Your task to perform on an android device: turn off data saver in the chrome app Image 0: 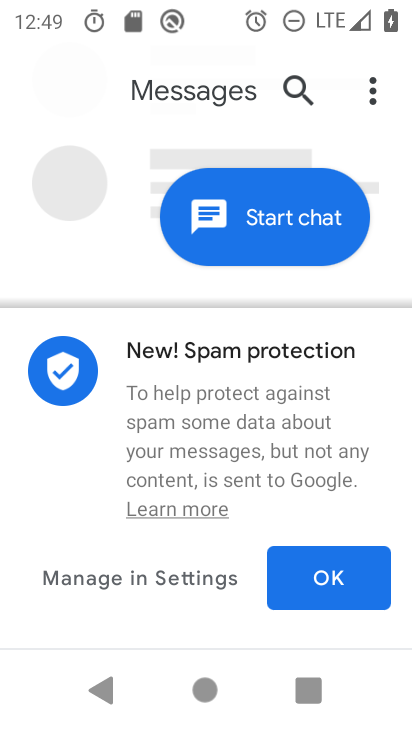
Step 0: press home button
Your task to perform on an android device: turn off data saver in the chrome app Image 1: 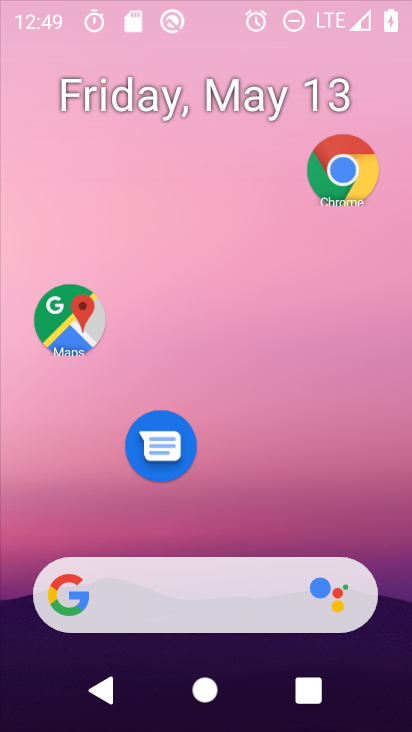
Step 1: drag from (276, 649) to (250, 71)
Your task to perform on an android device: turn off data saver in the chrome app Image 2: 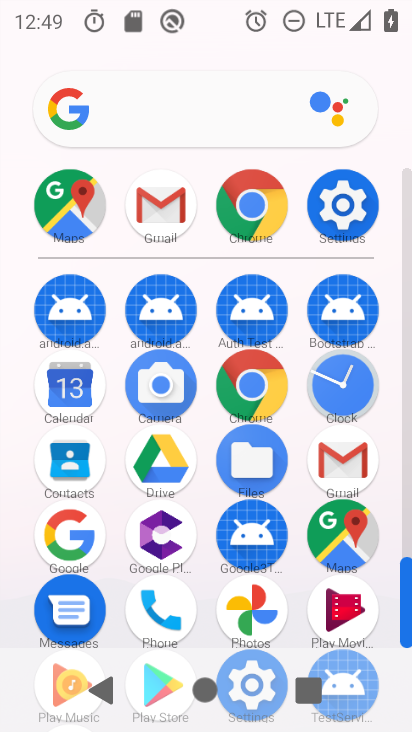
Step 2: click (254, 394)
Your task to perform on an android device: turn off data saver in the chrome app Image 3: 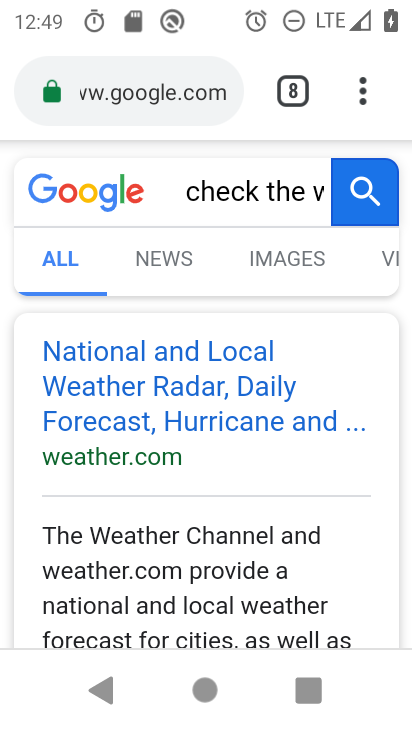
Step 3: click (373, 101)
Your task to perform on an android device: turn off data saver in the chrome app Image 4: 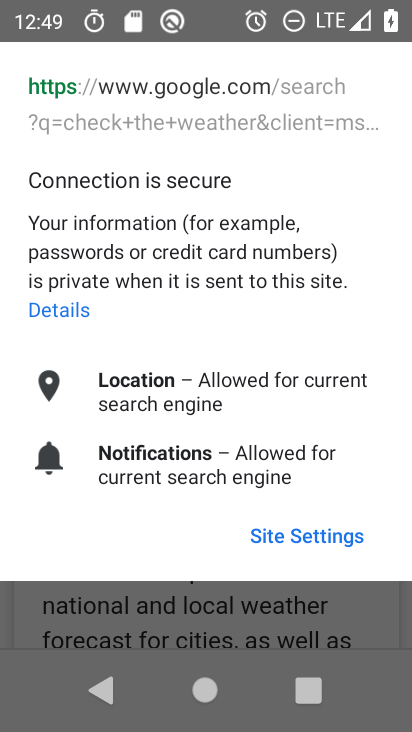
Step 4: press back button
Your task to perform on an android device: turn off data saver in the chrome app Image 5: 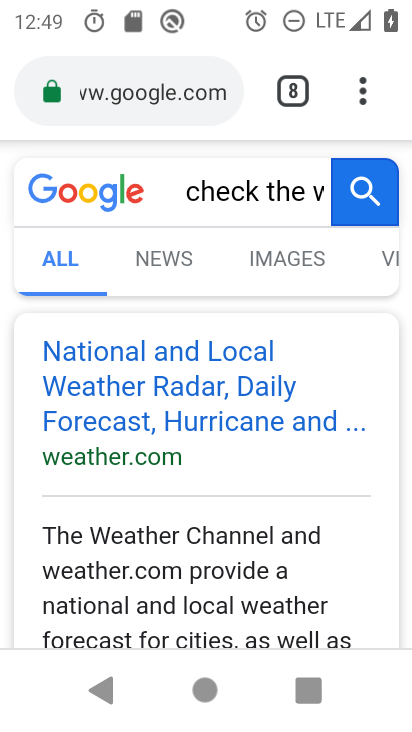
Step 5: drag from (362, 85) to (209, 489)
Your task to perform on an android device: turn off data saver in the chrome app Image 6: 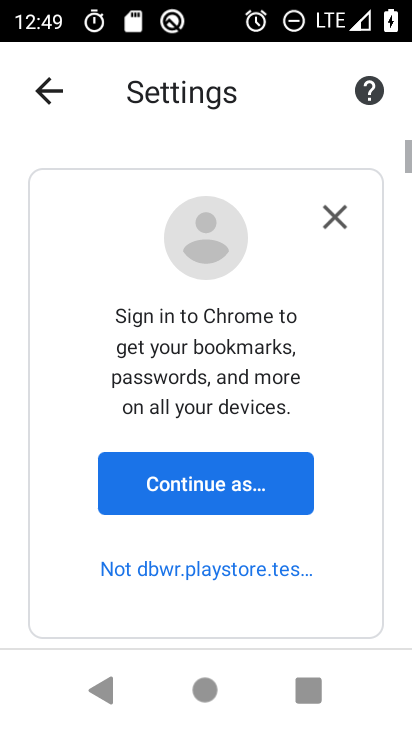
Step 6: drag from (249, 605) to (289, 19)
Your task to perform on an android device: turn off data saver in the chrome app Image 7: 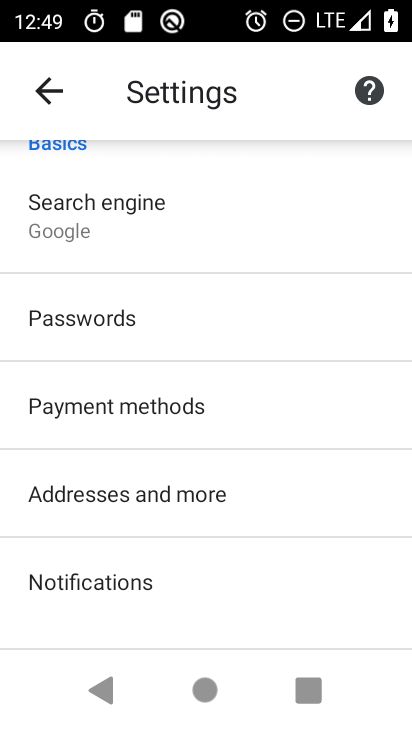
Step 7: drag from (269, 618) to (336, 119)
Your task to perform on an android device: turn off data saver in the chrome app Image 8: 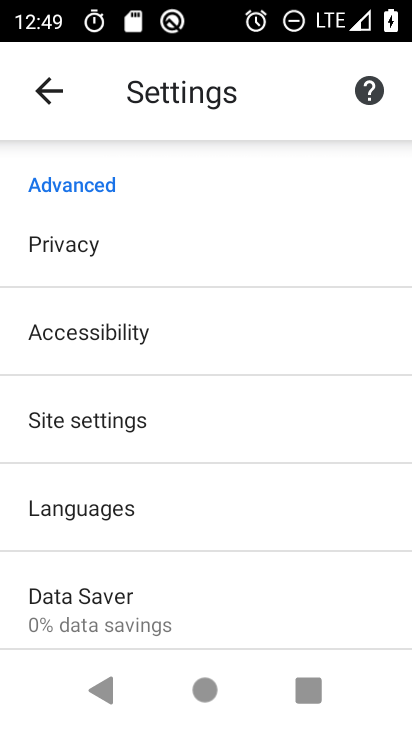
Step 8: click (140, 620)
Your task to perform on an android device: turn off data saver in the chrome app Image 9: 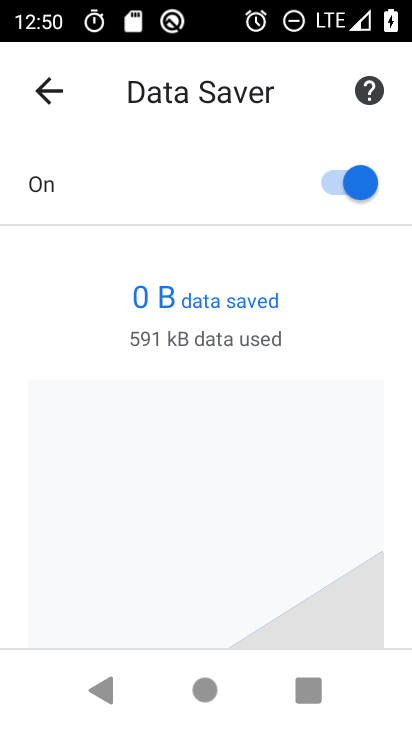
Step 9: click (338, 174)
Your task to perform on an android device: turn off data saver in the chrome app Image 10: 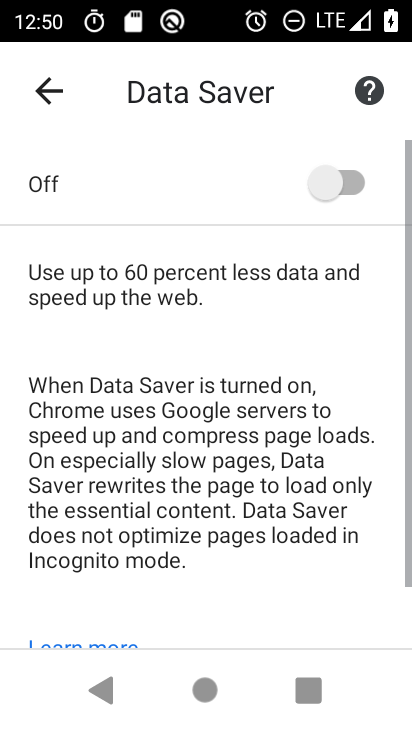
Step 10: task complete